Your task to perform on an android device: Show me popular games on the Play Store Image 0: 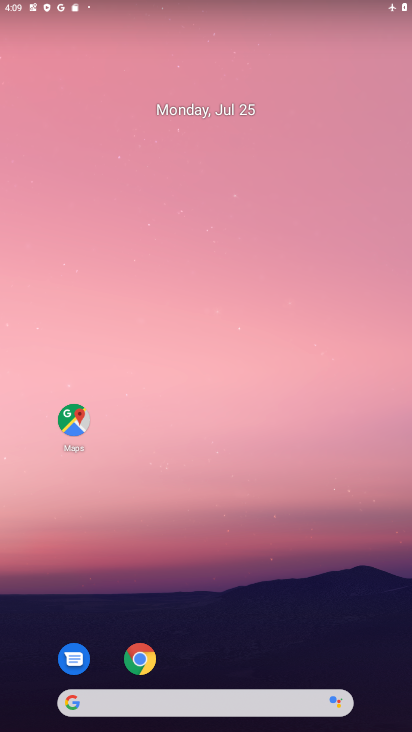
Step 0: drag from (314, 616) to (295, 258)
Your task to perform on an android device: Show me popular games on the Play Store Image 1: 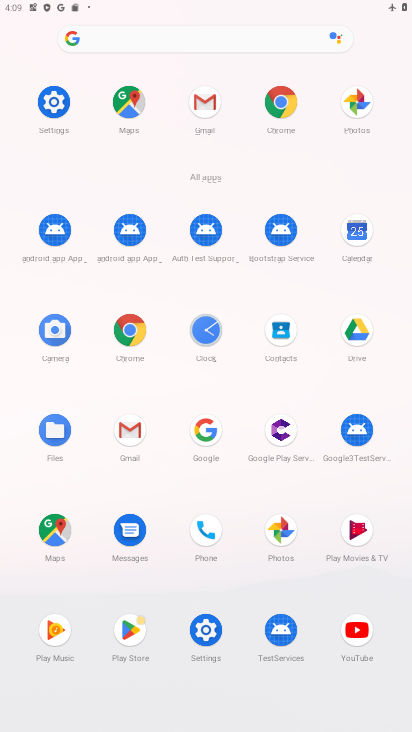
Step 1: click (134, 632)
Your task to perform on an android device: Show me popular games on the Play Store Image 2: 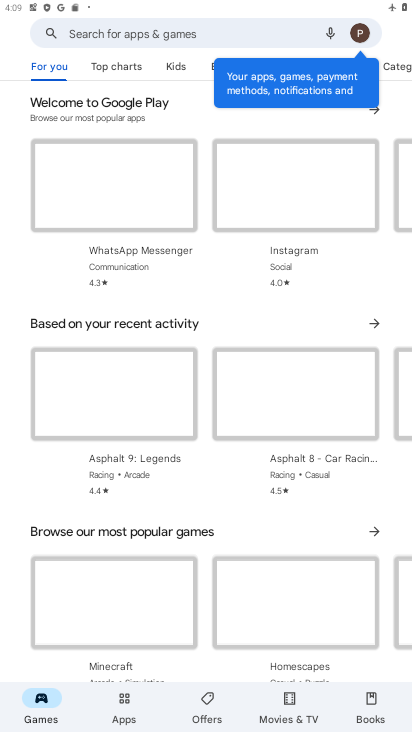
Step 2: click (377, 531)
Your task to perform on an android device: Show me popular games on the Play Store Image 3: 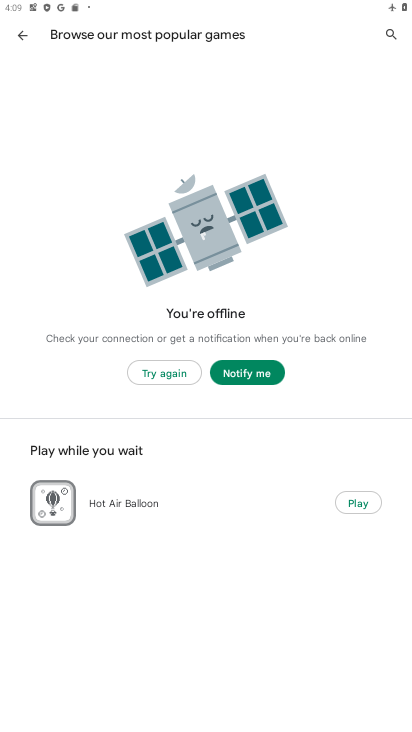
Step 3: click (162, 374)
Your task to perform on an android device: Show me popular games on the Play Store Image 4: 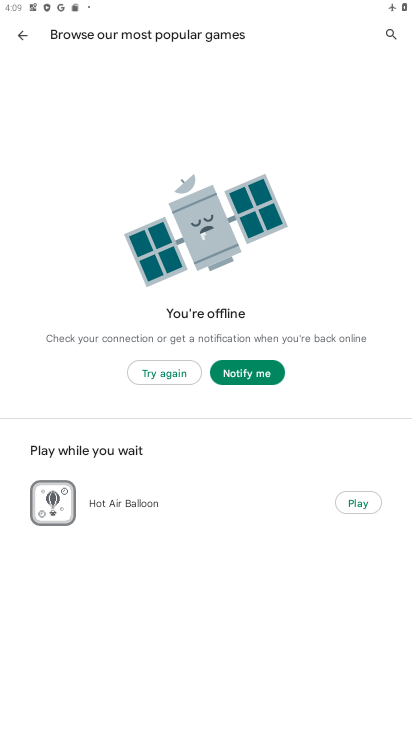
Step 4: task complete